Your task to perform on an android device: turn on the 24-hour format for clock Image 0: 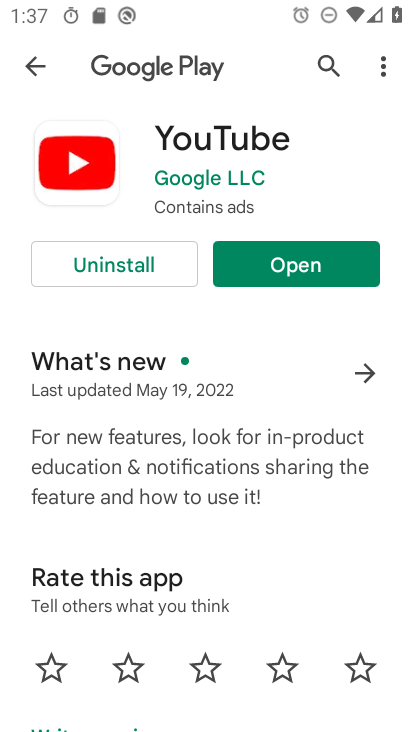
Step 0: press home button
Your task to perform on an android device: turn on the 24-hour format for clock Image 1: 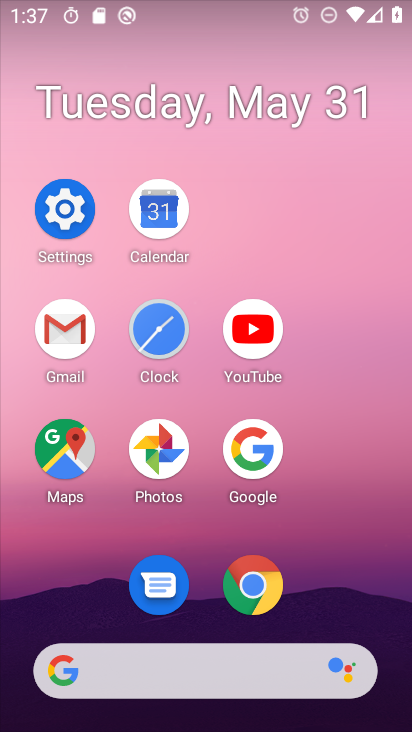
Step 1: click (138, 337)
Your task to perform on an android device: turn on the 24-hour format for clock Image 2: 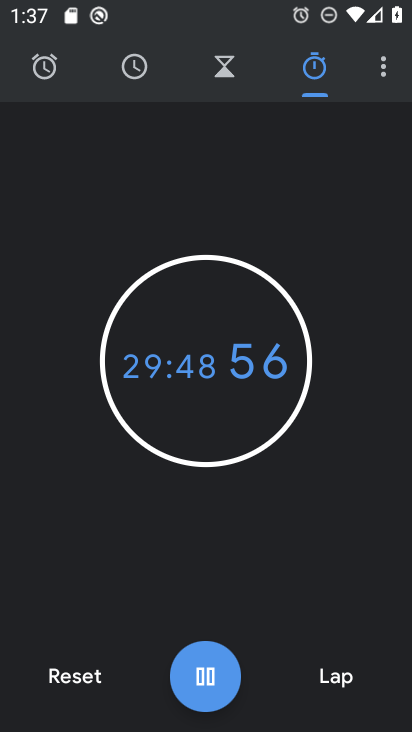
Step 2: click (383, 65)
Your task to perform on an android device: turn on the 24-hour format for clock Image 3: 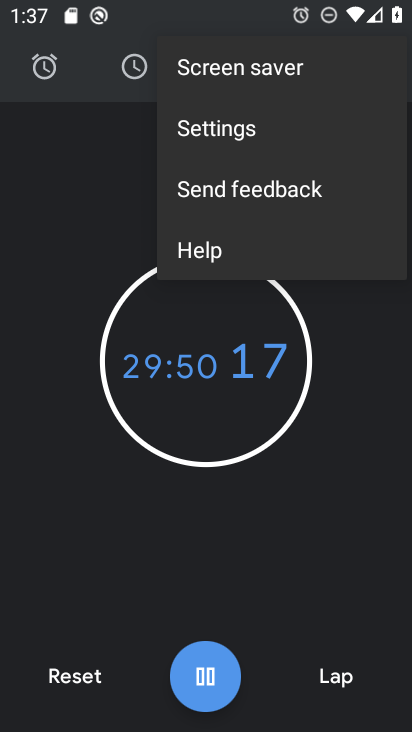
Step 3: click (298, 131)
Your task to perform on an android device: turn on the 24-hour format for clock Image 4: 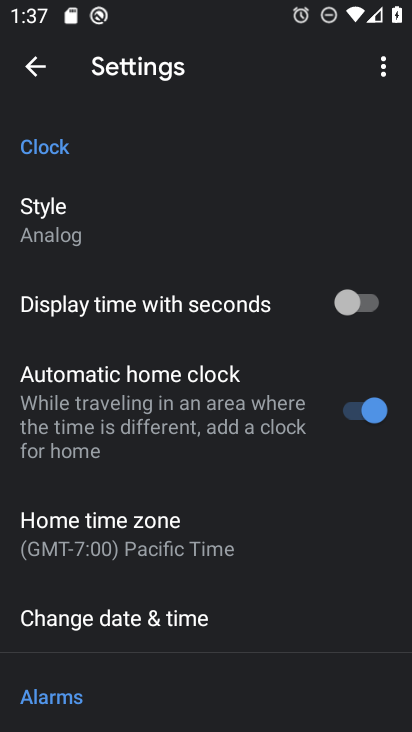
Step 4: click (154, 634)
Your task to perform on an android device: turn on the 24-hour format for clock Image 5: 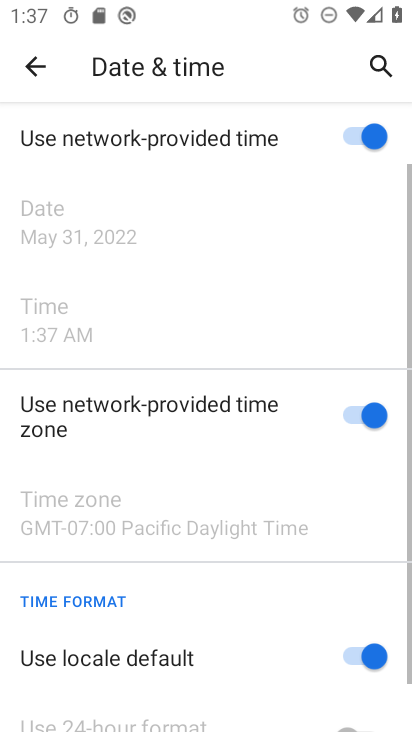
Step 5: drag from (246, 540) to (277, 190)
Your task to perform on an android device: turn on the 24-hour format for clock Image 6: 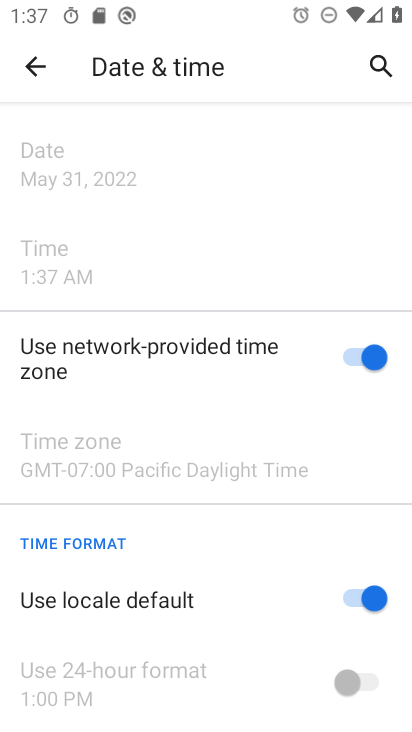
Step 6: click (367, 608)
Your task to perform on an android device: turn on the 24-hour format for clock Image 7: 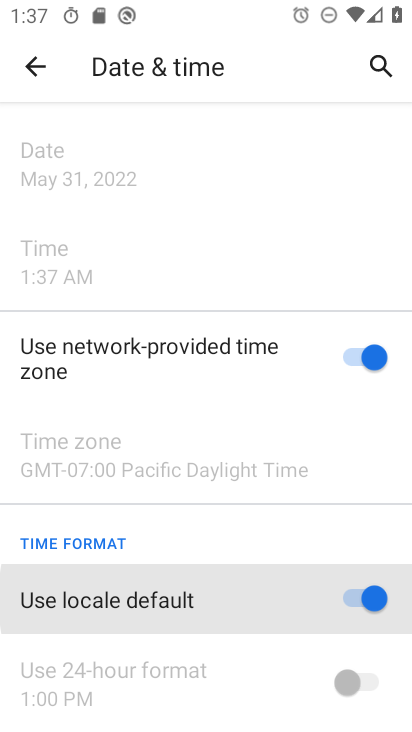
Step 7: click (348, 667)
Your task to perform on an android device: turn on the 24-hour format for clock Image 8: 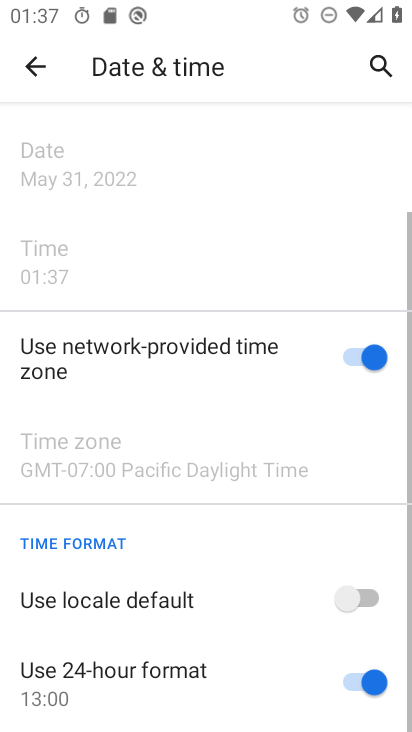
Step 8: task complete